Your task to perform on an android device: Set the phone to "Do not disturb". Image 0: 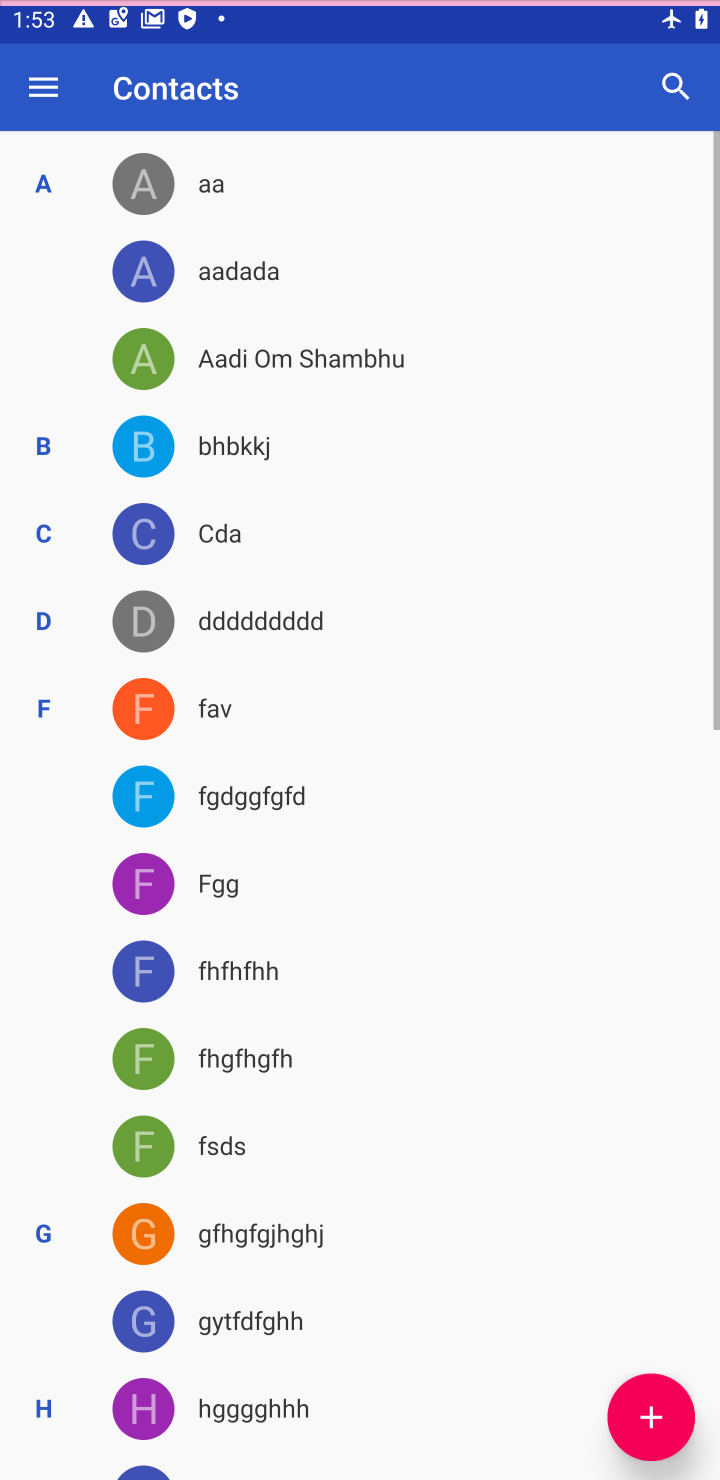
Step 0: press home button
Your task to perform on an android device: Set the phone to "Do not disturb". Image 1: 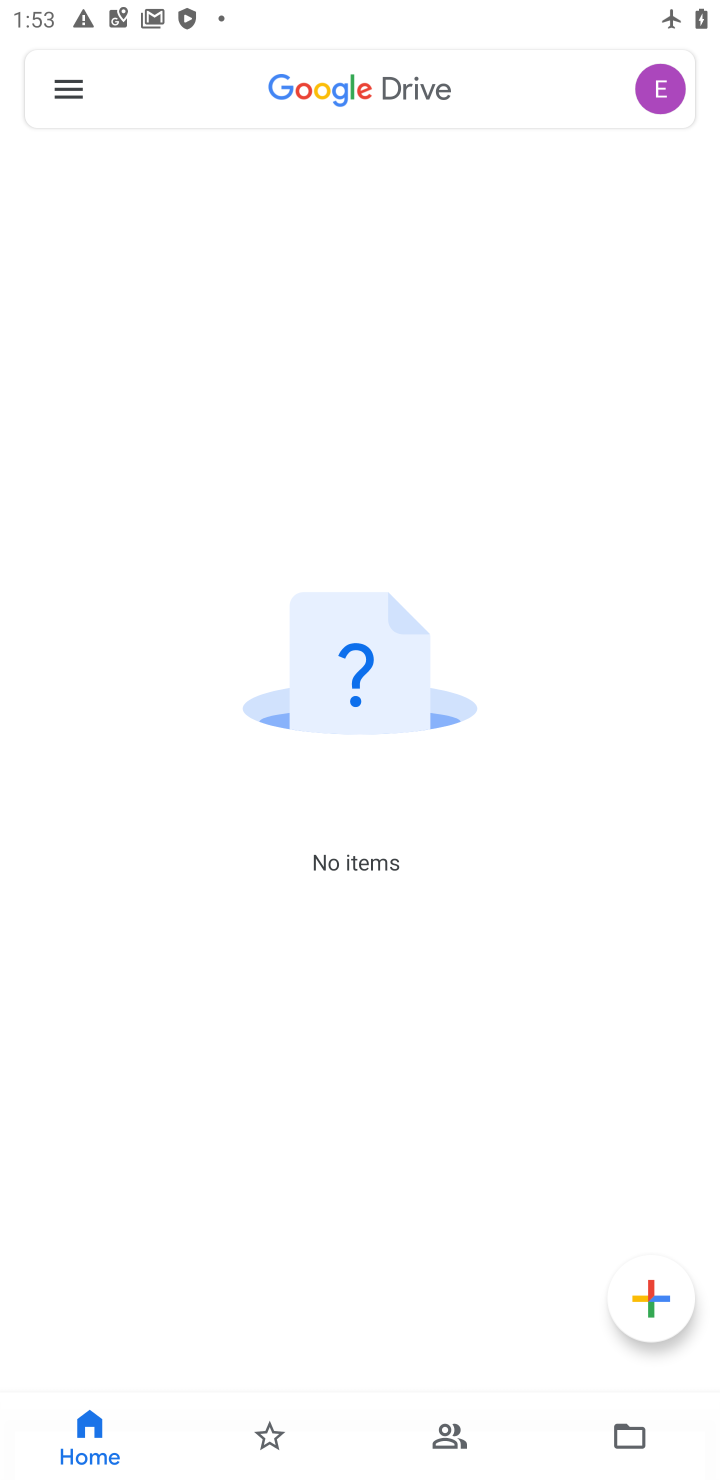
Step 1: press home button
Your task to perform on an android device: Set the phone to "Do not disturb". Image 2: 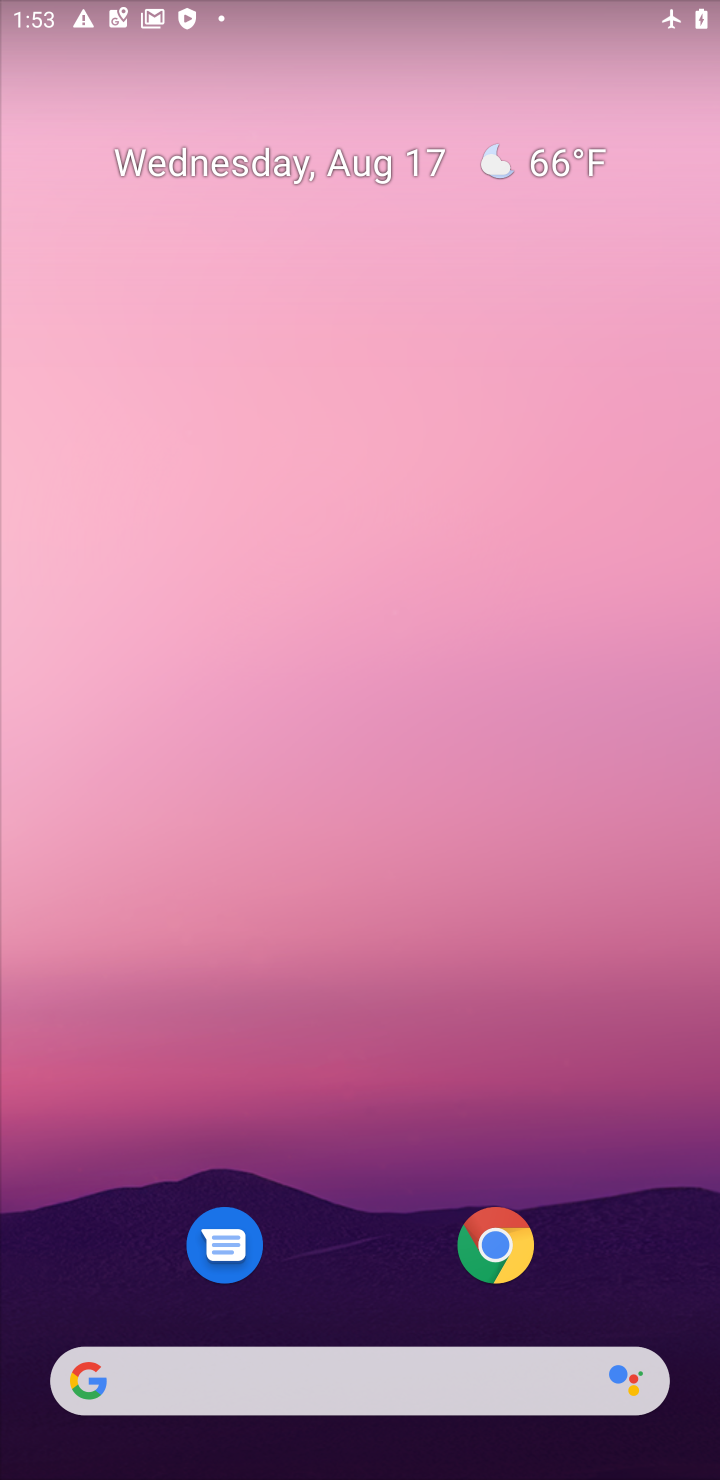
Step 2: press home button
Your task to perform on an android device: Set the phone to "Do not disturb". Image 3: 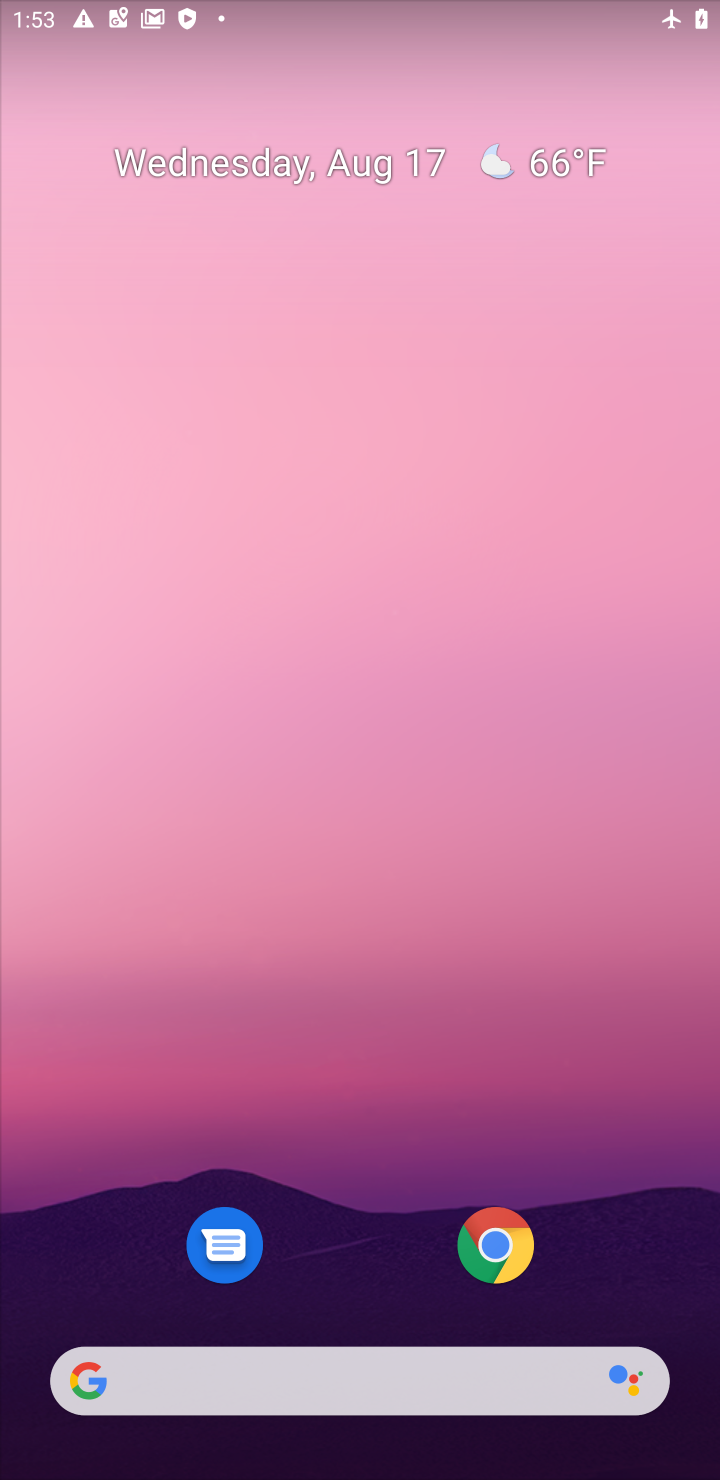
Step 3: drag from (376, 1231) to (292, 149)
Your task to perform on an android device: Set the phone to "Do not disturb". Image 4: 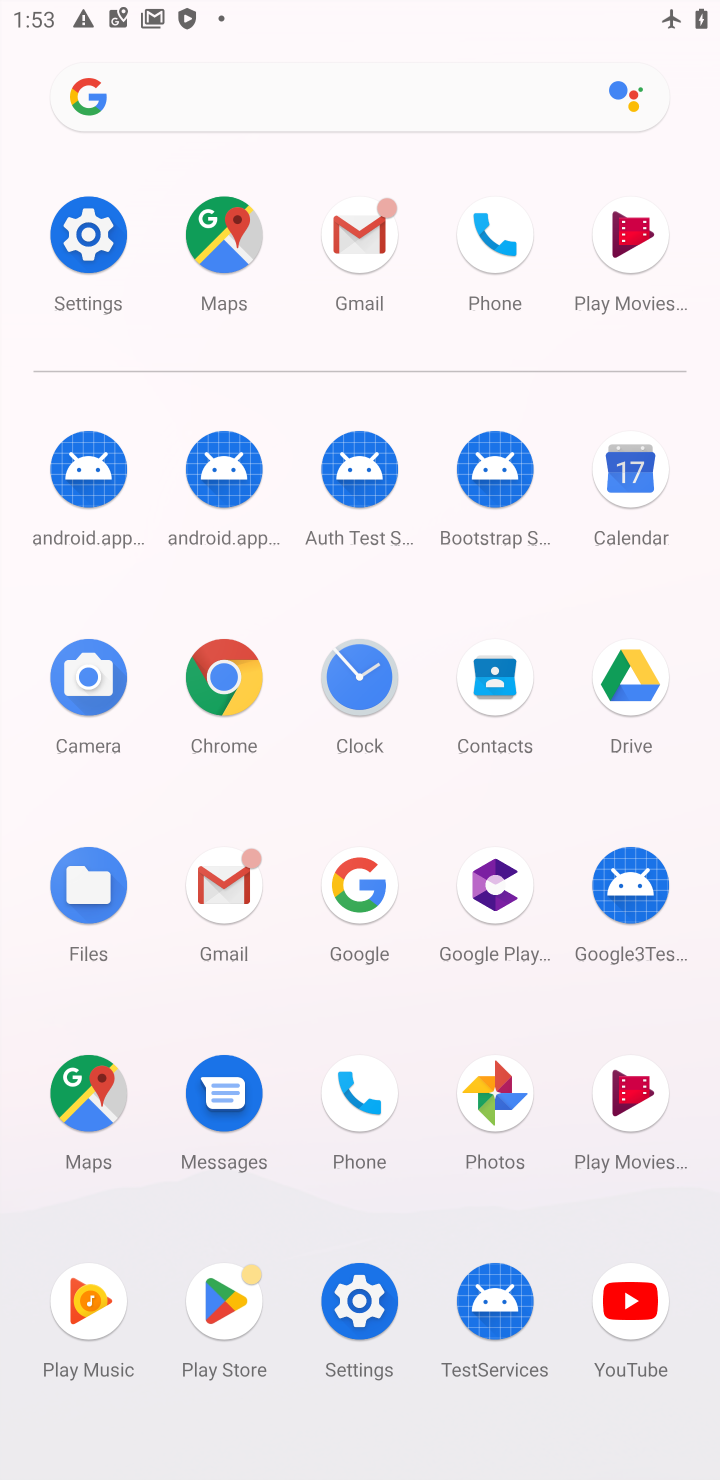
Step 4: click (342, 1308)
Your task to perform on an android device: Set the phone to "Do not disturb". Image 5: 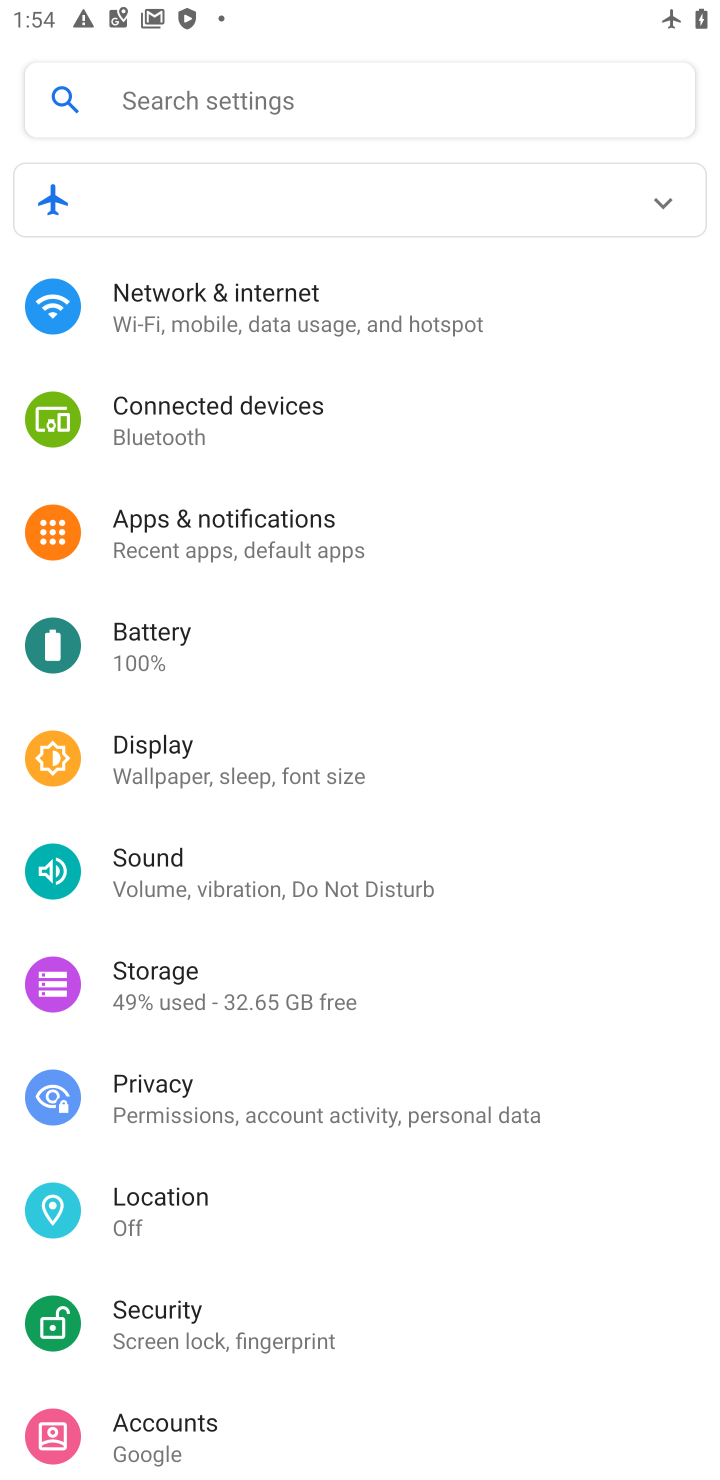
Step 5: click (336, 883)
Your task to perform on an android device: Set the phone to "Do not disturb". Image 6: 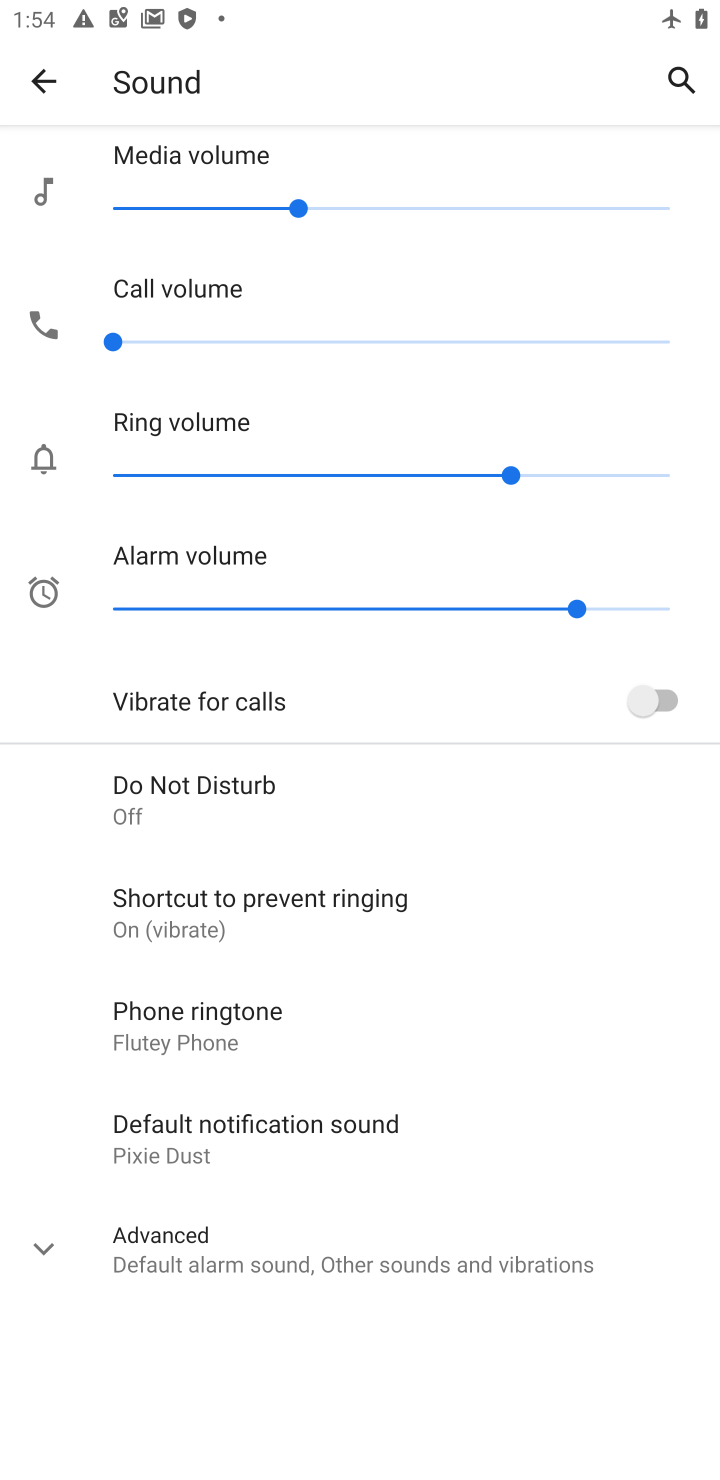
Step 6: click (192, 764)
Your task to perform on an android device: Set the phone to "Do not disturb". Image 7: 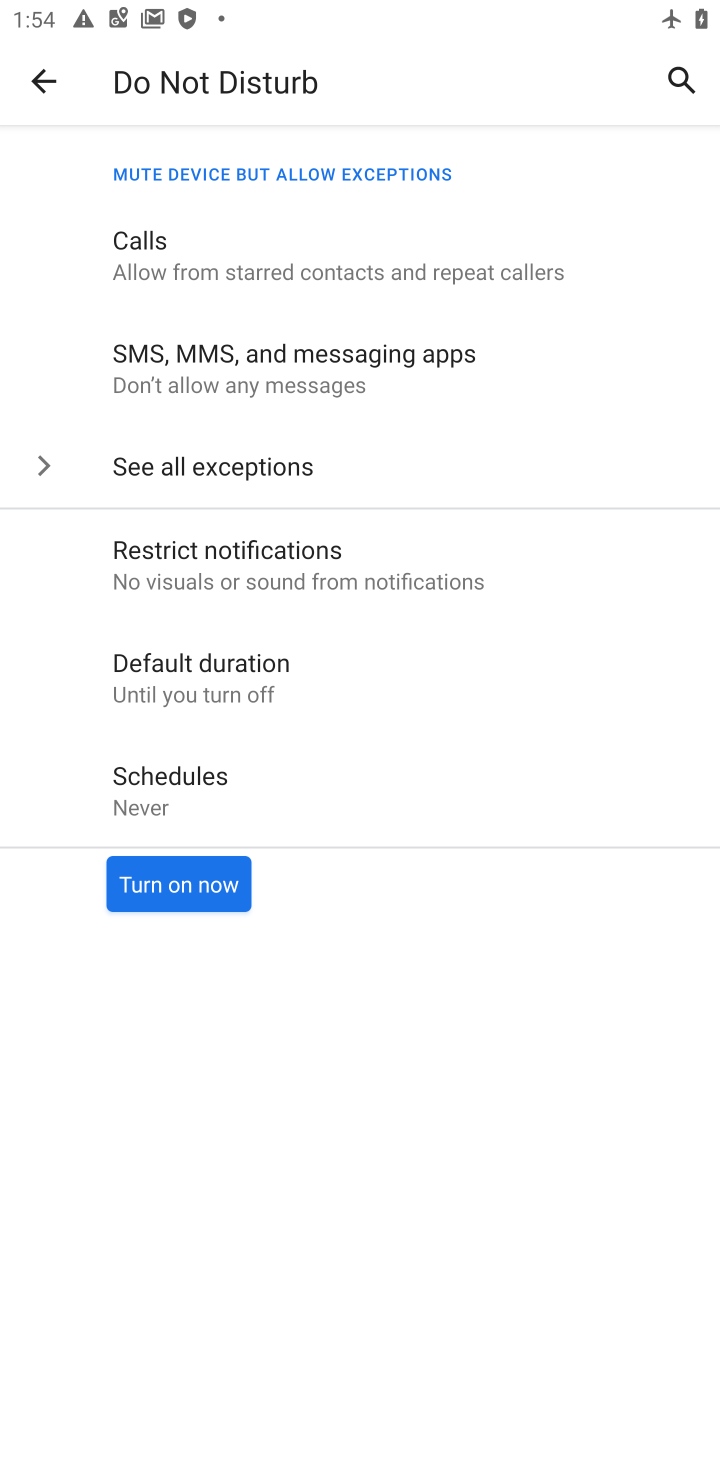
Step 7: click (202, 881)
Your task to perform on an android device: Set the phone to "Do not disturb". Image 8: 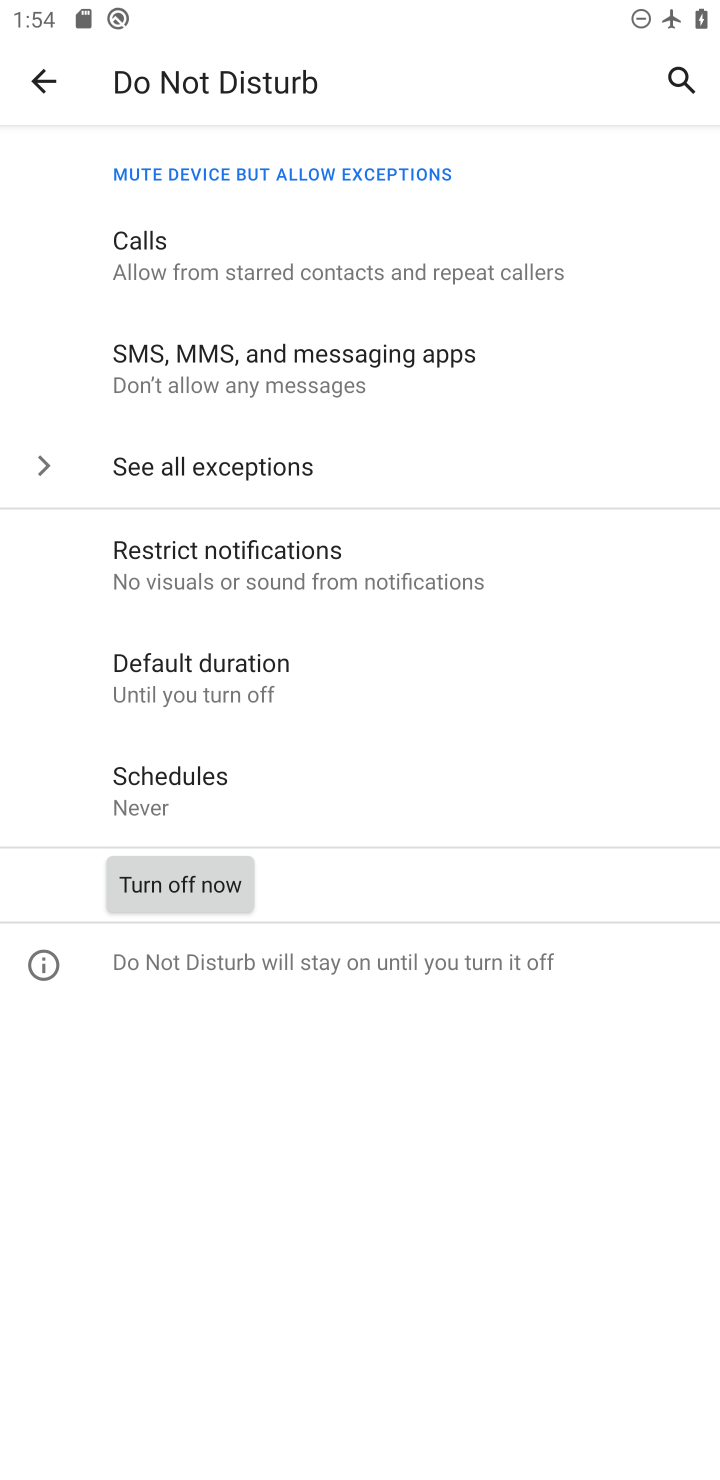
Step 8: task complete